Your task to perform on an android device: change the clock display to digital Image 0: 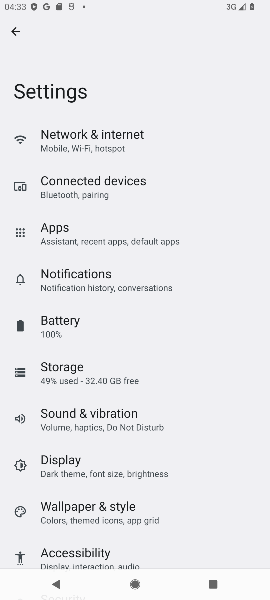
Step 0: press home button
Your task to perform on an android device: change the clock display to digital Image 1: 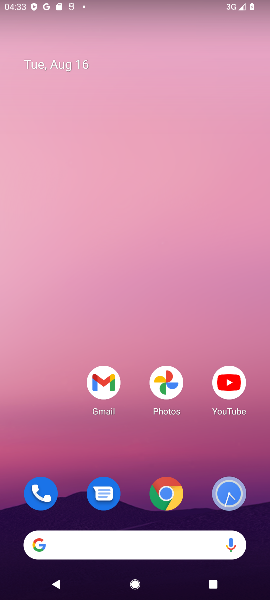
Step 1: drag from (64, 508) to (53, 168)
Your task to perform on an android device: change the clock display to digital Image 2: 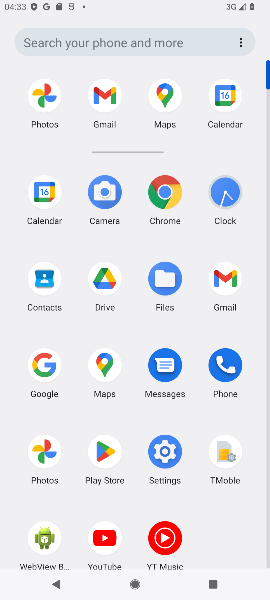
Step 2: click (221, 194)
Your task to perform on an android device: change the clock display to digital Image 3: 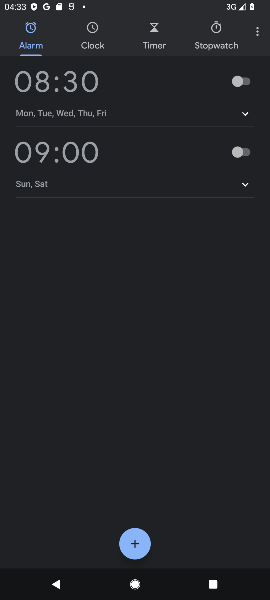
Step 3: click (256, 31)
Your task to perform on an android device: change the clock display to digital Image 4: 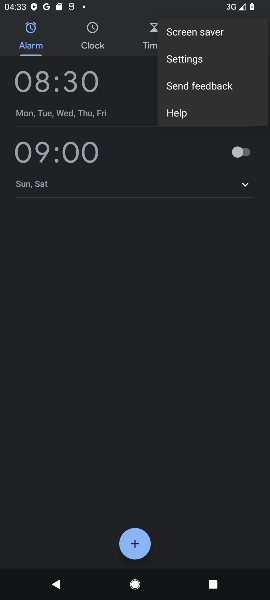
Step 4: click (191, 65)
Your task to perform on an android device: change the clock display to digital Image 5: 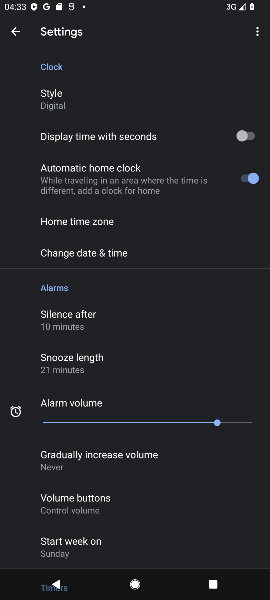
Step 5: drag from (195, 307) to (211, 202)
Your task to perform on an android device: change the clock display to digital Image 6: 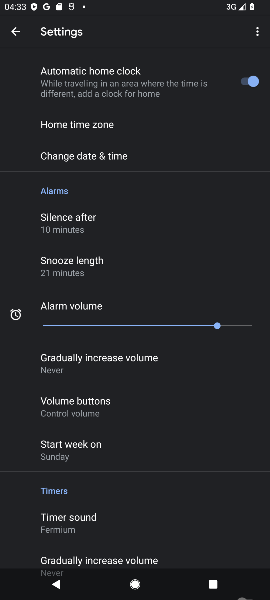
Step 6: drag from (197, 371) to (209, 243)
Your task to perform on an android device: change the clock display to digital Image 7: 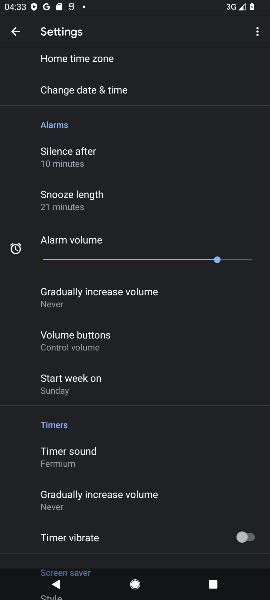
Step 7: drag from (190, 454) to (204, 293)
Your task to perform on an android device: change the clock display to digital Image 8: 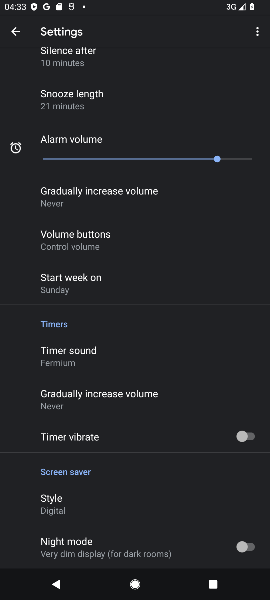
Step 8: drag from (183, 455) to (195, 299)
Your task to perform on an android device: change the clock display to digital Image 9: 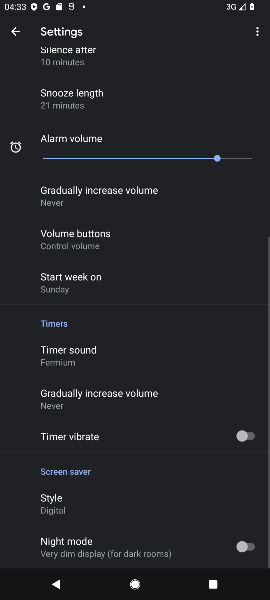
Step 9: drag from (203, 100) to (202, 254)
Your task to perform on an android device: change the clock display to digital Image 10: 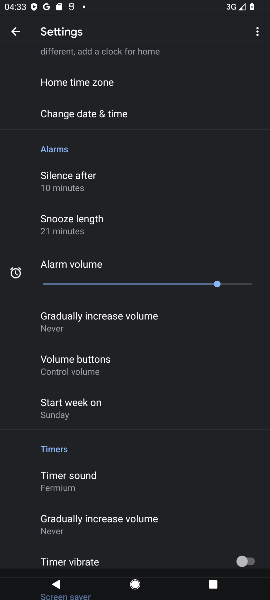
Step 10: drag from (207, 87) to (216, 262)
Your task to perform on an android device: change the clock display to digital Image 11: 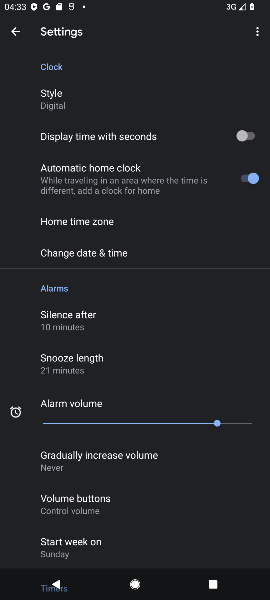
Step 11: drag from (204, 87) to (206, 245)
Your task to perform on an android device: change the clock display to digital Image 12: 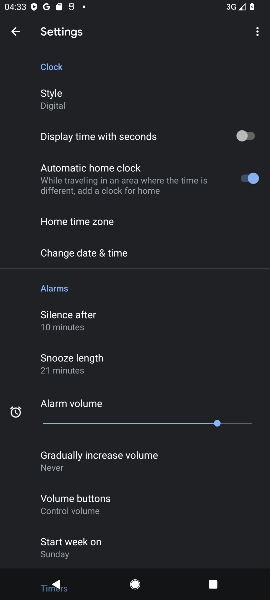
Step 12: click (57, 102)
Your task to perform on an android device: change the clock display to digital Image 13: 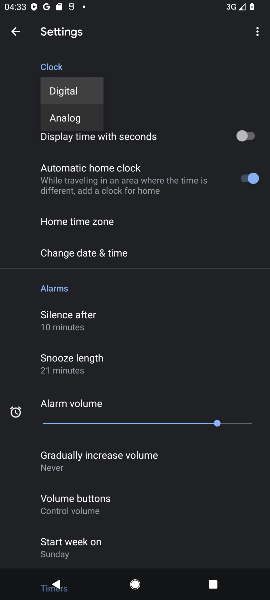
Step 13: click (76, 93)
Your task to perform on an android device: change the clock display to digital Image 14: 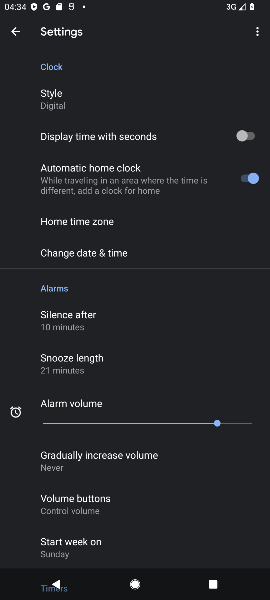
Step 14: task complete